Your task to perform on an android device: all mails in gmail Image 0: 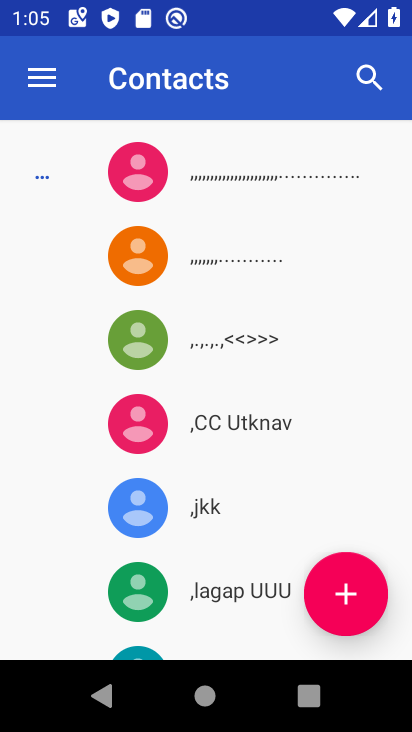
Step 0: press home button
Your task to perform on an android device: all mails in gmail Image 1: 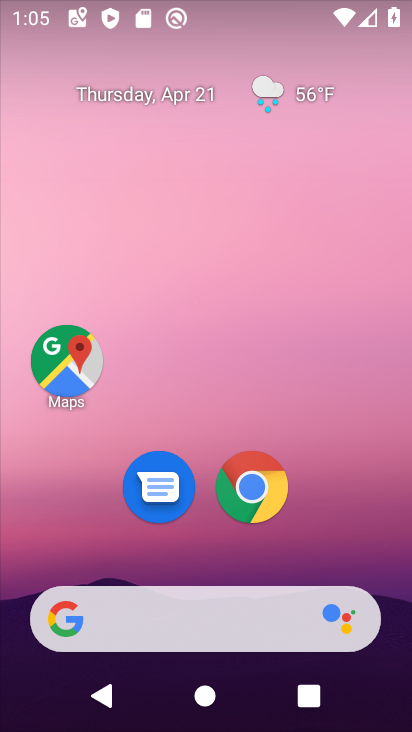
Step 1: drag from (342, 545) to (263, 18)
Your task to perform on an android device: all mails in gmail Image 2: 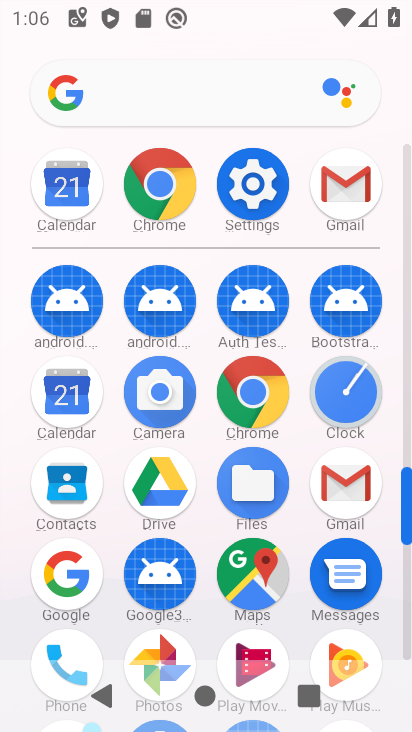
Step 2: click (346, 180)
Your task to perform on an android device: all mails in gmail Image 3: 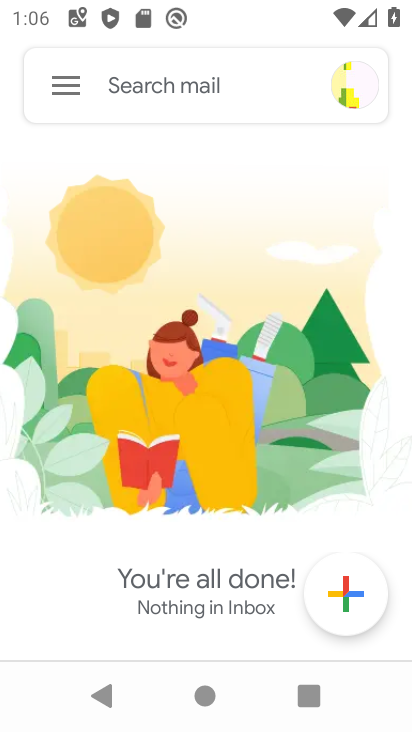
Step 3: click (68, 91)
Your task to perform on an android device: all mails in gmail Image 4: 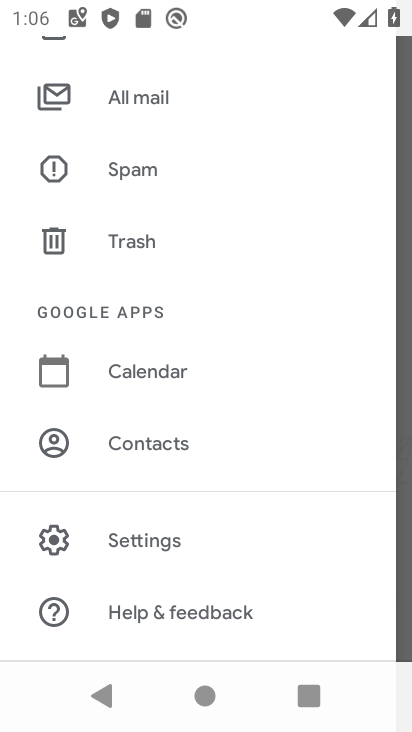
Step 4: click (144, 95)
Your task to perform on an android device: all mails in gmail Image 5: 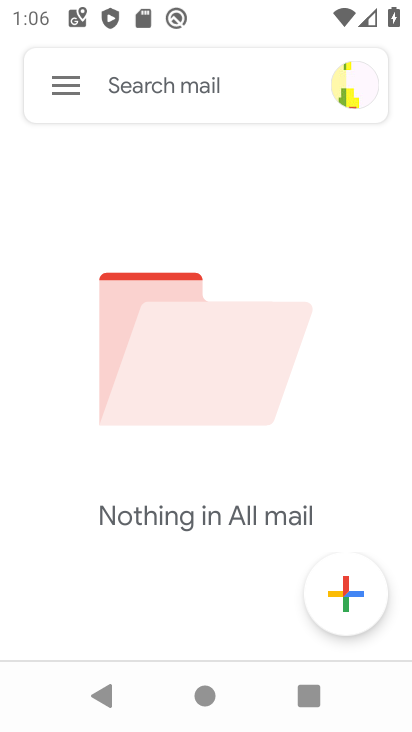
Step 5: task complete